Your task to perform on an android device: toggle pop-ups in chrome Image 0: 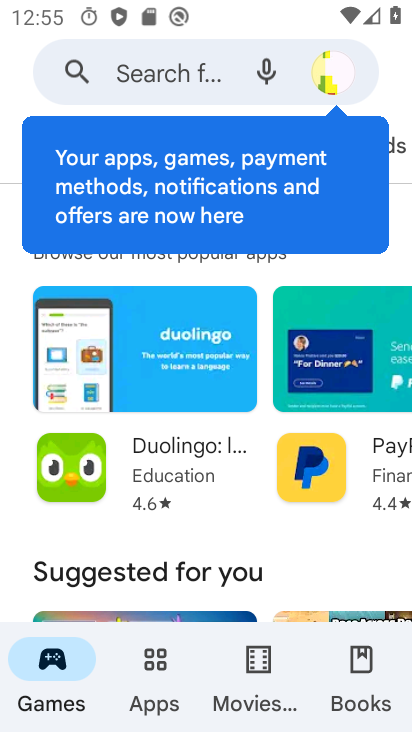
Step 0: press home button
Your task to perform on an android device: toggle pop-ups in chrome Image 1: 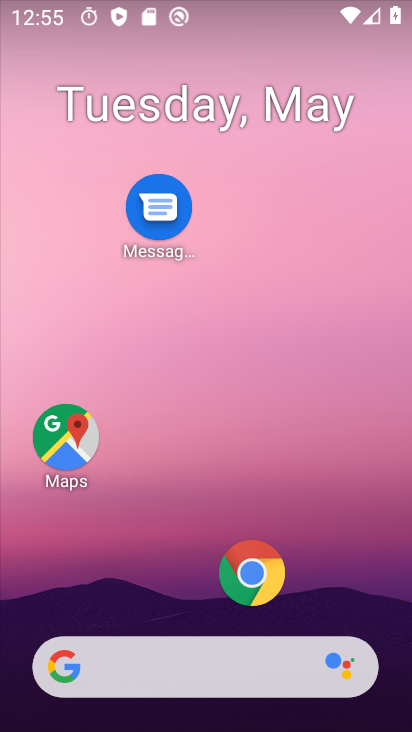
Step 1: click (248, 570)
Your task to perform on an android device: toggle pop-ups in chrome Image 2: 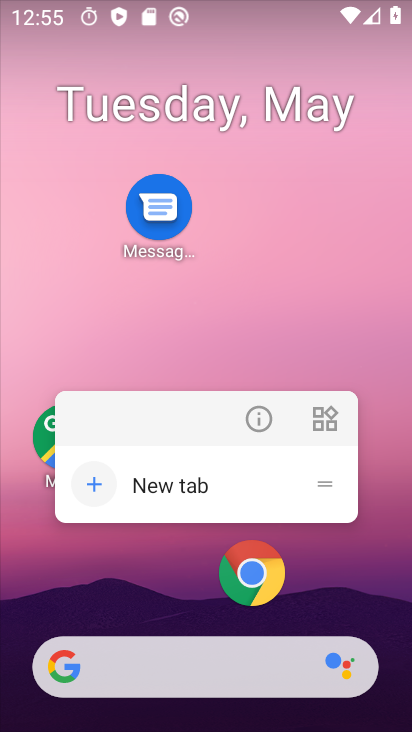
Step 2: click (262, 564)
Your task to perform on an android device: toggle pop-ups in chrome Image 3: 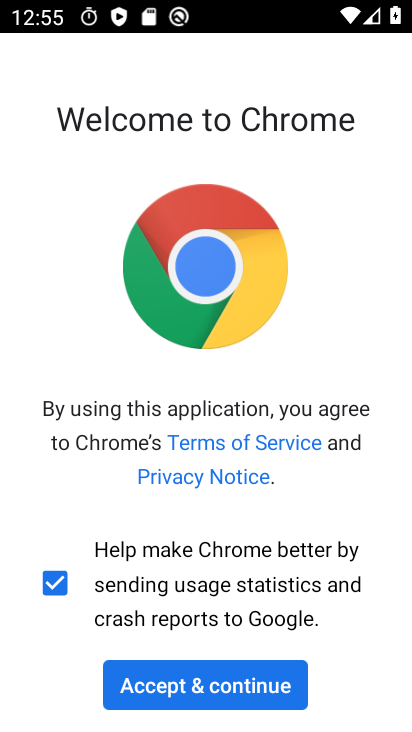
Step 3: click (183, 666)
Your task to perform on an android device: toggle pop-ups in chrome Image 4: 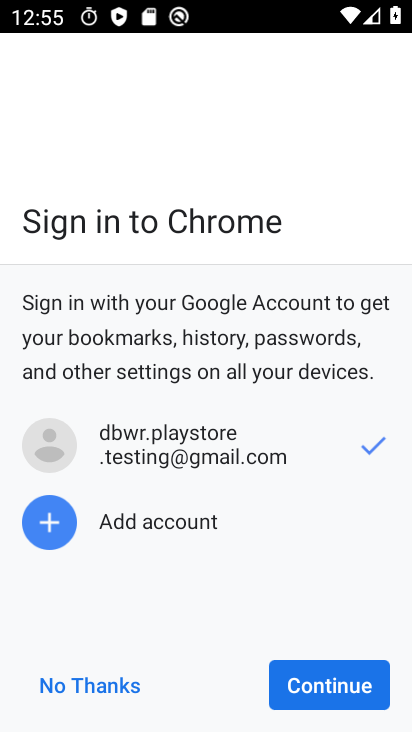
Step 4: click (338, 686)
Your task to perform on an android device: toggle pop-ups in chrome Image 5: 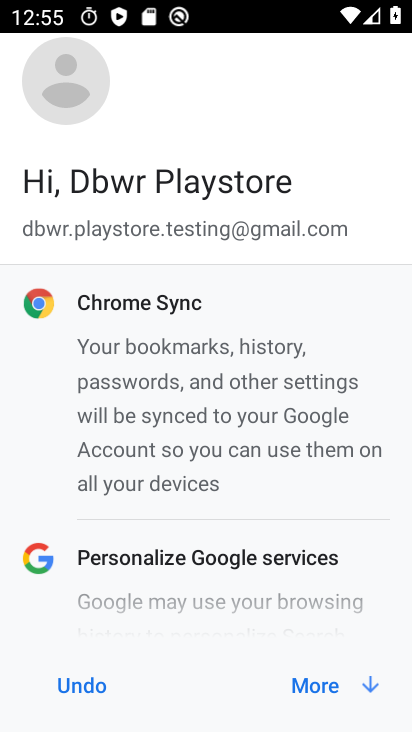
Step 5: click (336, 686)
Your task to perform on an android device: toggle pop-ups in chrome Image 6: 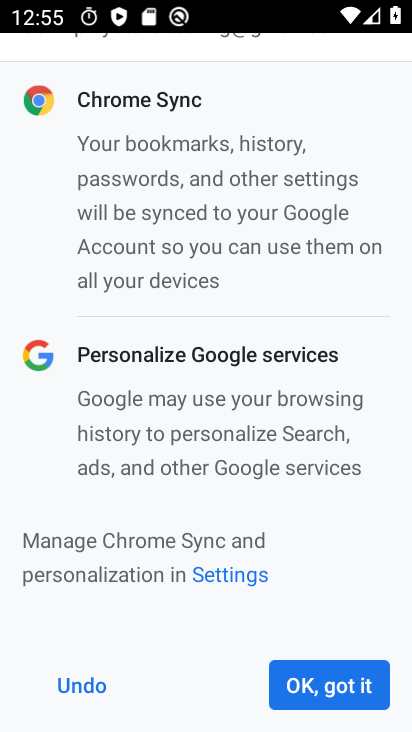
Step 6: click (335, 686)
Your task to perform on an android device: toggle pop-ups in chrome Image 7: 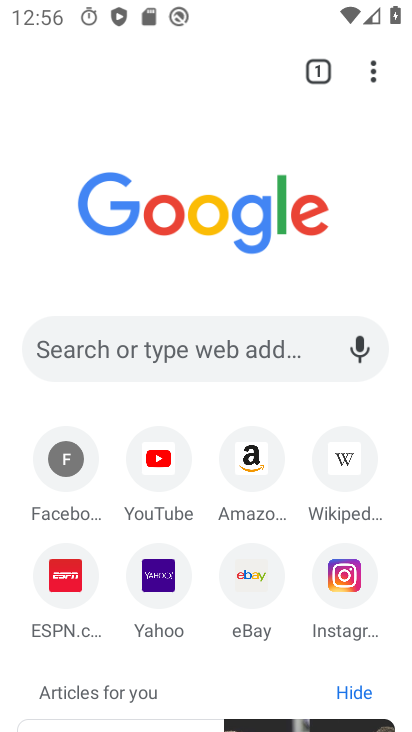
Step 7: click (373, 76)
Your task to perform on an android device: toggle pop-ups in chrome Image 8: 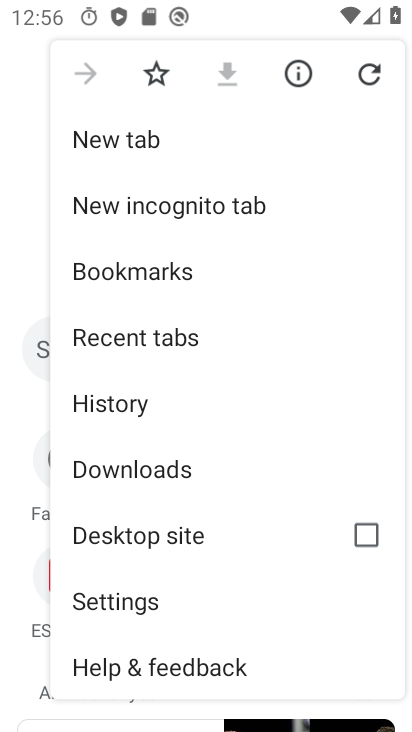
Step 8: click (127, 588)
Your task to perform on an android device: toggle pop-ups in chrome Image 9: 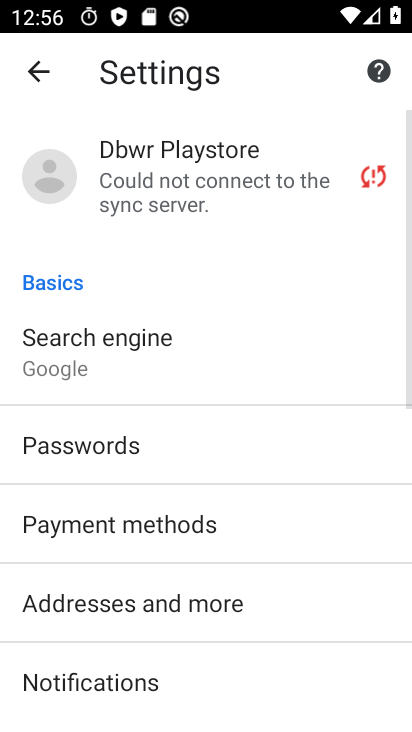
Step 9: drag from (136, 579) to (171, 335)
Your task to perform on an android device: toggle pop-ups in chrome Image 10: 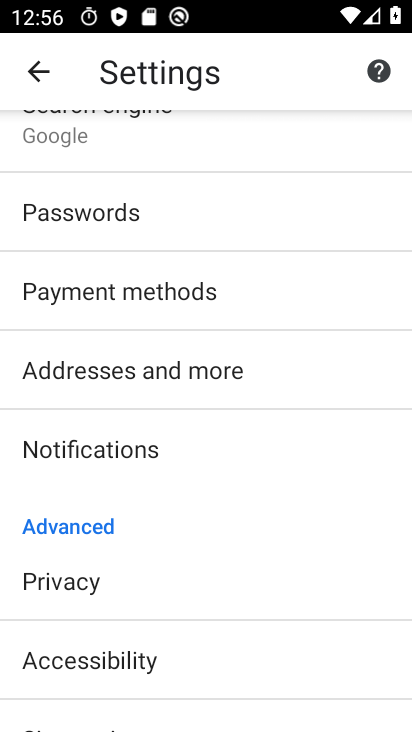
Step 10: drag from (140, 528) to (173, 311)
Your task to perform on an android device: toggle pop-ups in chrome Image 11: 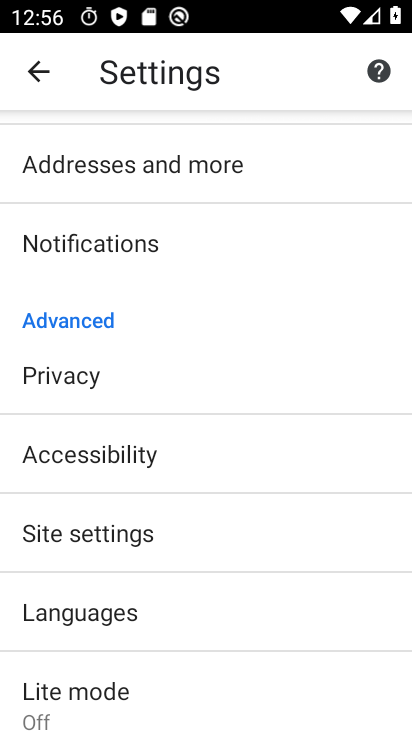
Step 11: click (135, 532)
Your task to perform on an android device: toggle pop-ups in chrome Image 12: 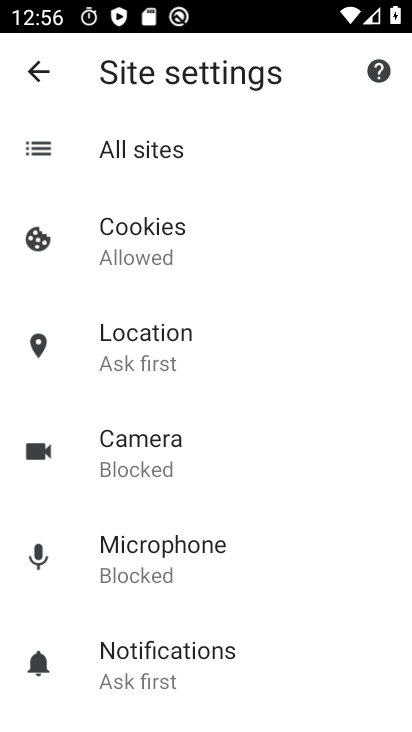
Step 12: drag from (179, 503) to (230, 185)
Your task to perform on an android device: toggle pop-ups in chrome Image 13: 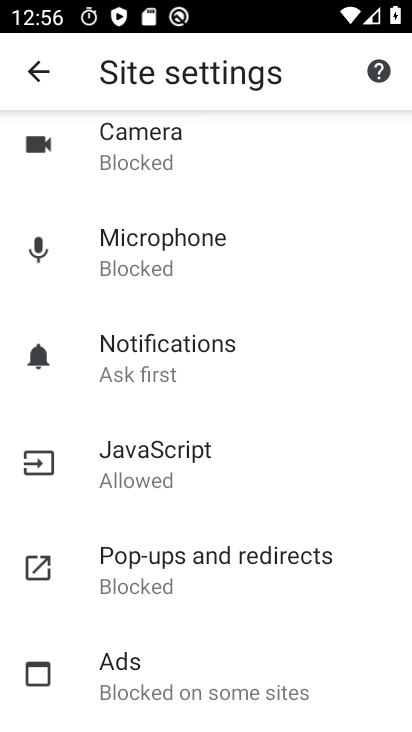
Step 13: click (190, 548)
Your task to perform on an android device: toggle pop-ups in chrome Image 14: 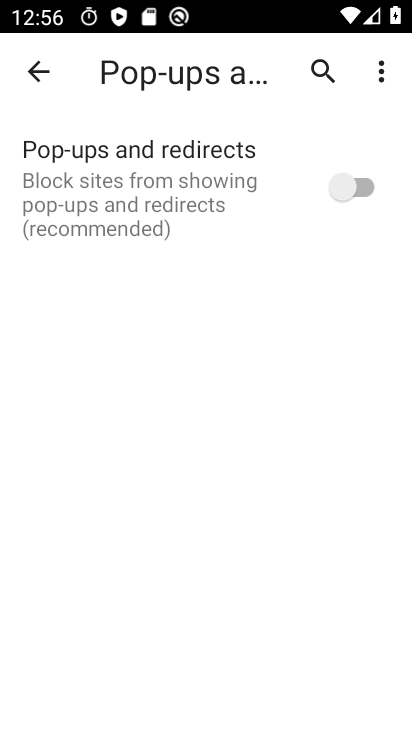
Step 14: click (366, 189)
Your task to perform on an android device: toggle pop-ups in chrome Image 15: 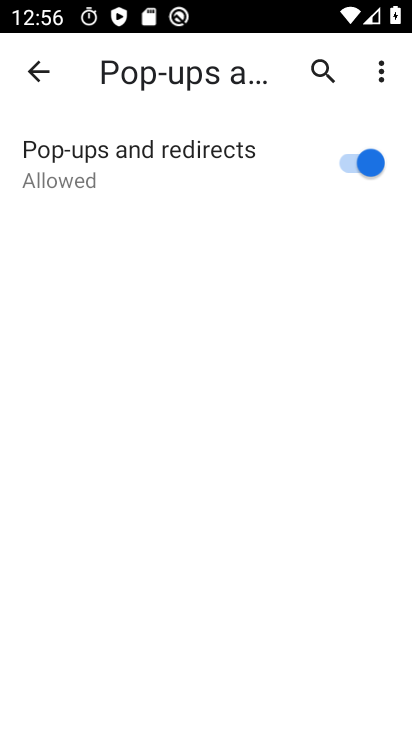
Step 15: task complete